Your task to perform on an android device: turn notification dots on Image 0: 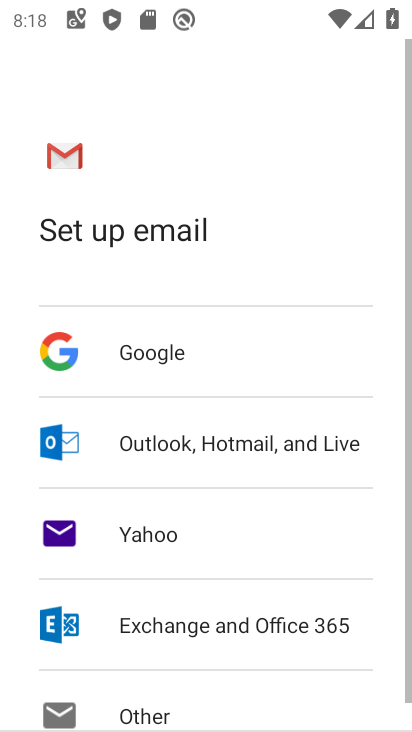
Step 0: press home button
Your task to perform on an android device: turn notification dots on Image 1: 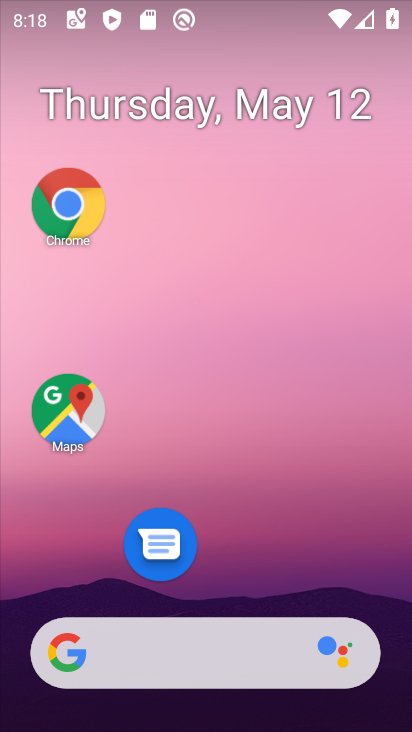
Step 1: drag from (193, 590) to (118, 60)
Your task to perform on an android device: turn notification dots on Image 2: 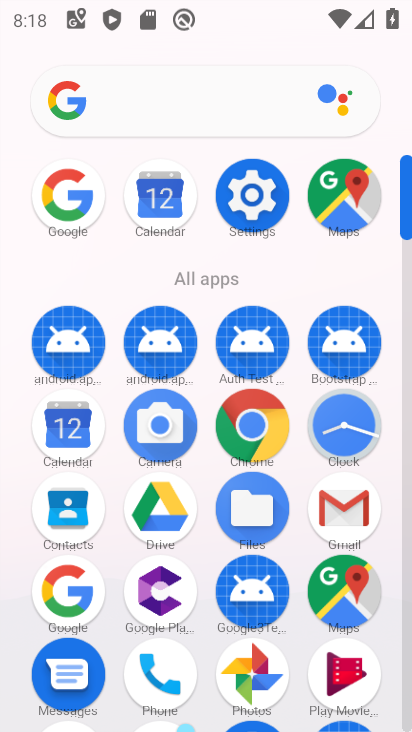
Step 2: click (267, 196)
Your task to perform on an android device: turn notification dots on Image 3: 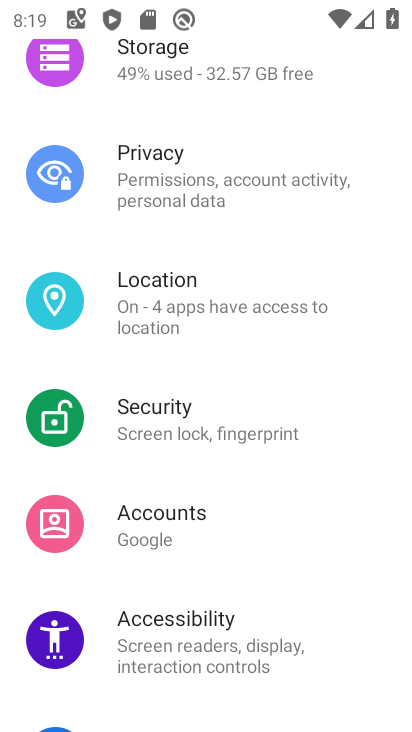
Step 3: drag from (262, 523) to (232, 94)
Your task to perform on an android device: turn notification dots on Image 4: 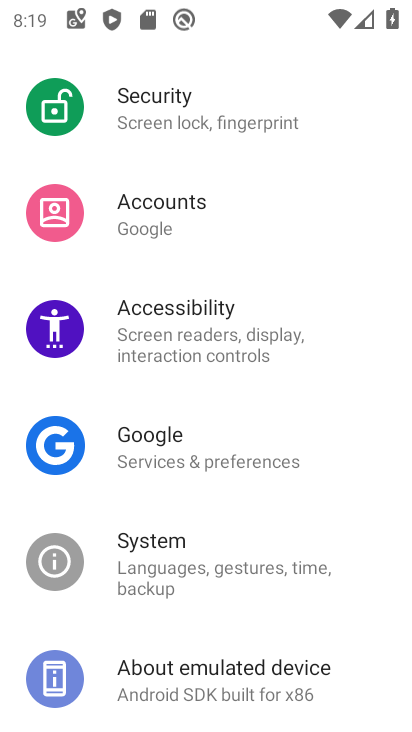
Step 4: drag from (231, 97) to (175, 727)
Your task to perform on an android device: turn notification dots on Image 5: 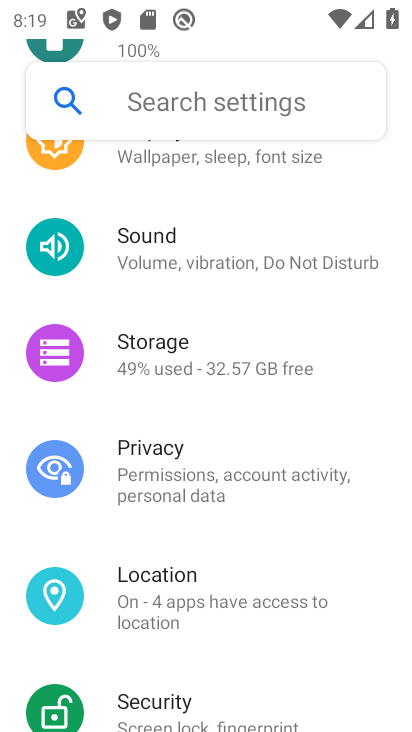
Step 5: drag from (197, 198) to (183, 621)
Your task to perform on an android device: turn notification dots on Image 6: 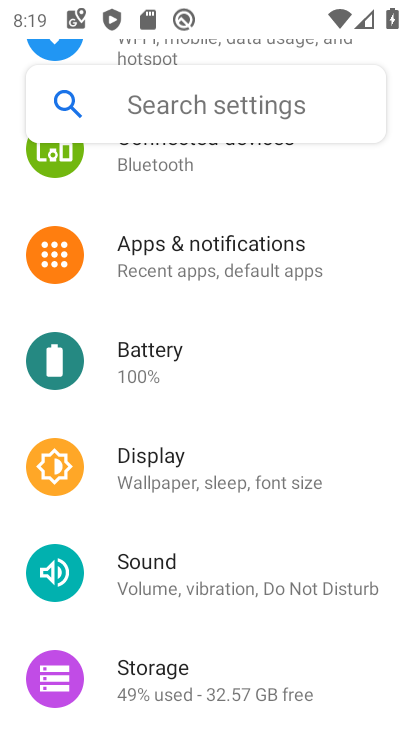
Step 6: click (189, 240)
Your task to perform on an android device: turn notification dots on Image 7: 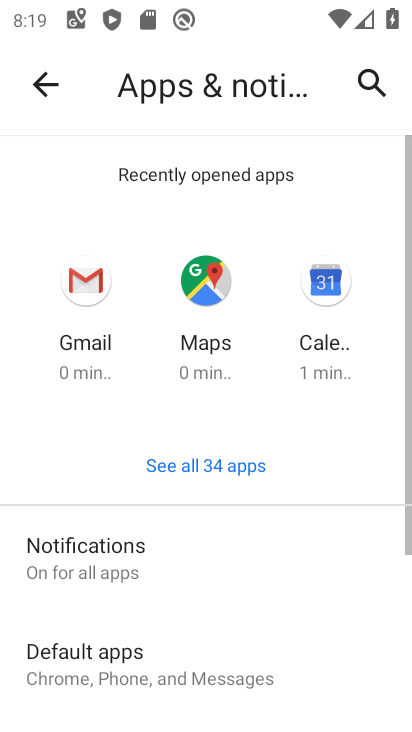
Step 7: click (179, 556)
Your task to perform on an android device: turn notification dots on Image 8: 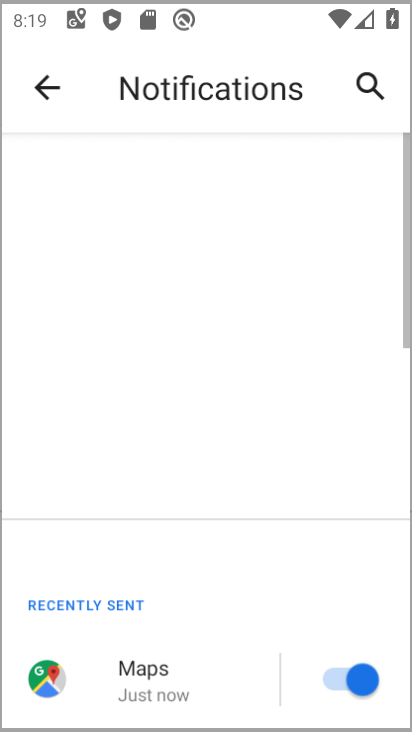
Step 8: drag from (179, 554) to (144, 57)
Your task to perform on an android device: turn notification dots on Image 9: 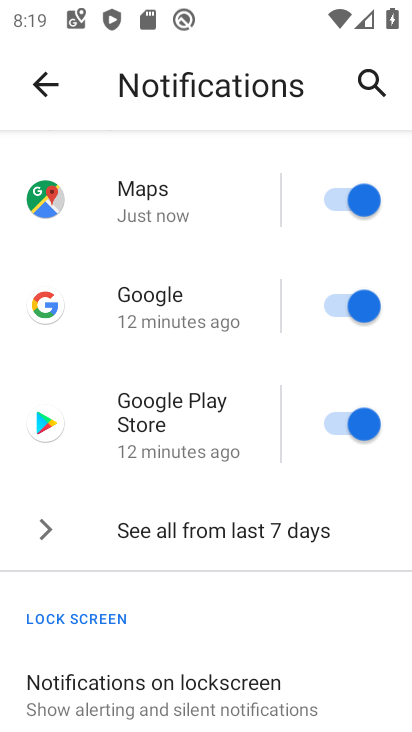
Step 9: drag from (210, 588) to (173, 126)
Your task to perform on an android device: turn notification dots on Image 10: 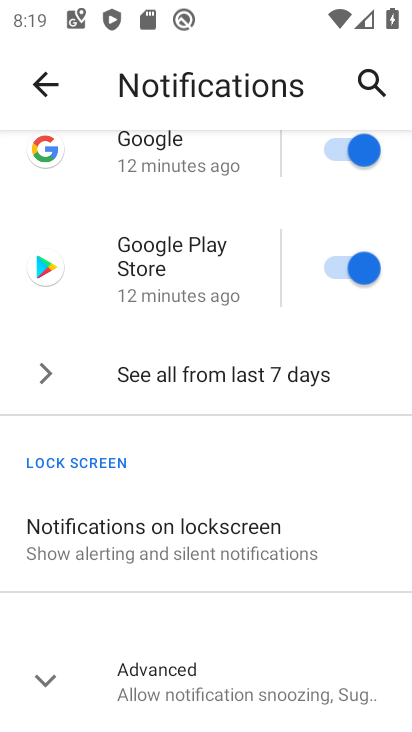
Step 10: click (216, 674)
Your task to perform on an android device: turn notification dots on Image 11: 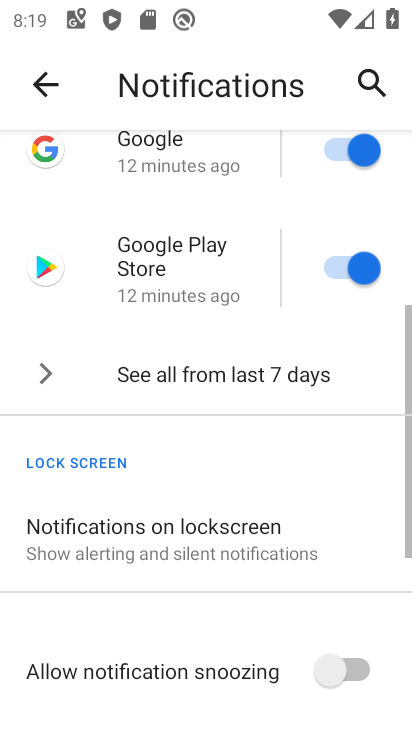
Step 11: task complete